Your task to perform on an android device: What's the news about the US president? Image 0: 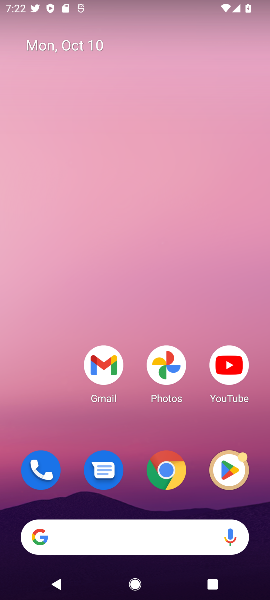
Step 0: click (164, 482)
Your task to perform on an android device: What's the news about the US president? Image 1: 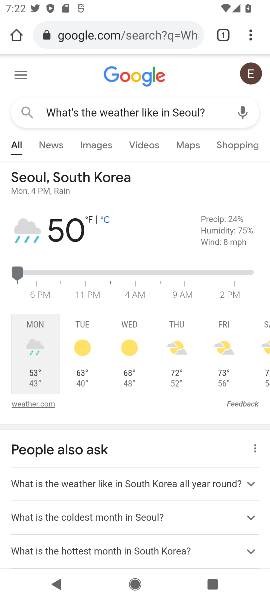
Step 1: click (166, 473)
Your task to perform on an android device: What's the news about the US president? Image 2: 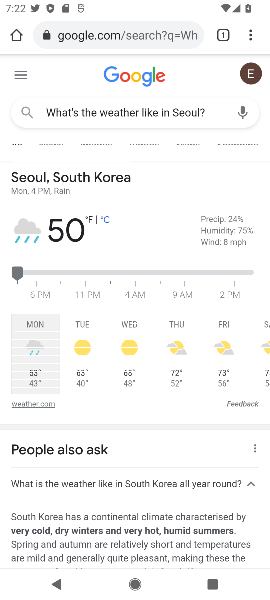
Step 2: click (76, 26)
Your task to perform on an android device: What's the news about the US president? Image 3: 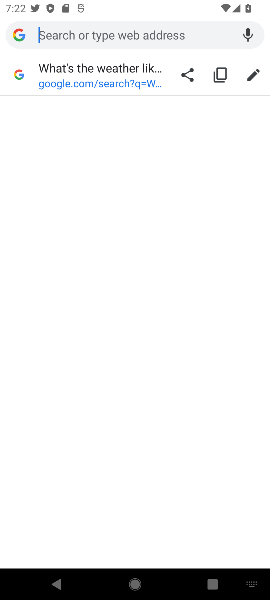
Step 3: type "What's the news about the US president?"
Your task to perform on an android device: What's the news about the US president? Image 4: 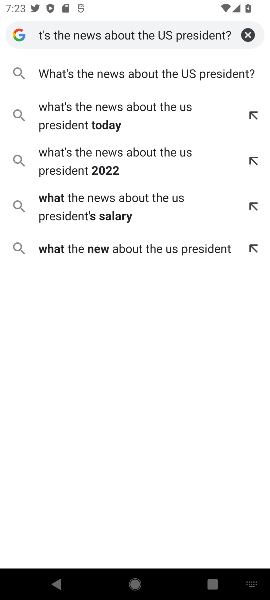
Step 4: click (155, 75)
Your task to perform on an android device: What's the news about the US president? Image 5: 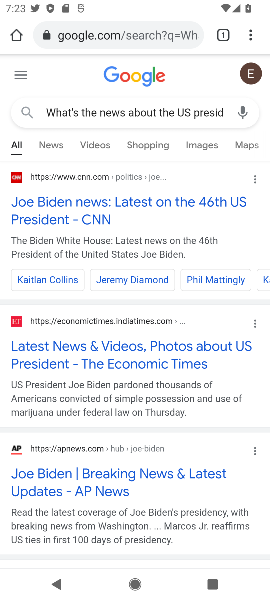
Step 5: click (153, 76)
Your task to perform on an android device: What's the news about the US president? Image 6: 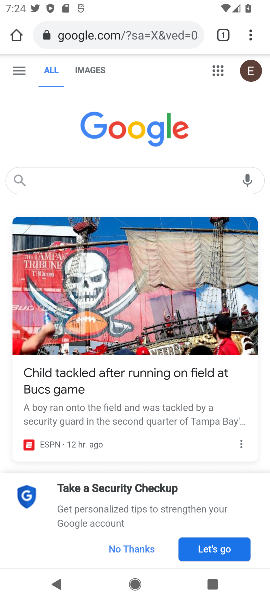
Step 6: click (88, 40)
Your task to perform on an android device: What's the news about the US president? Image 7: 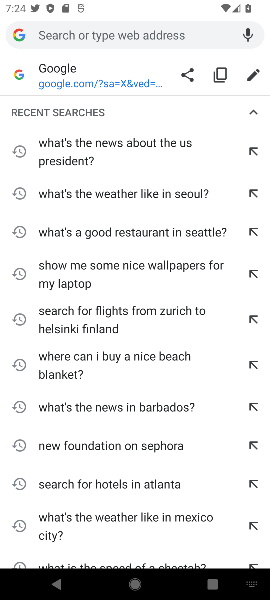
Step 7: click (178, 146)
Your task to perform on an android device: What's the news about the US president? Image 8: 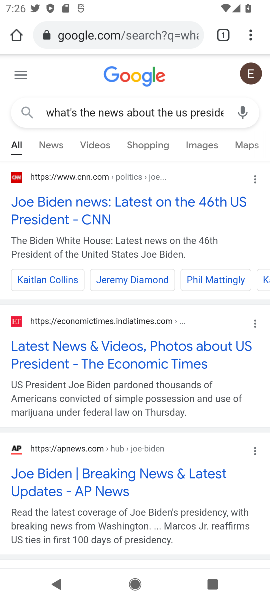
Step 8: click (51, 145)
Your task to perform on an android device: What's the news about the US president? Image 9: 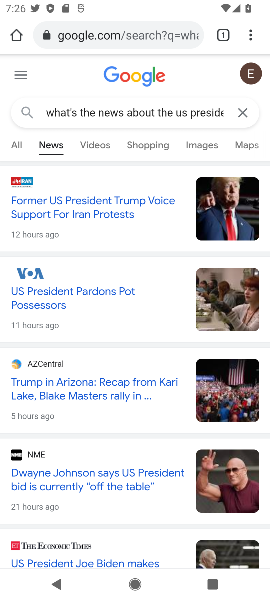
Step 9: task complete